Your task to perform on an android device: remove spam from my inbox in the gmail app Image 0: 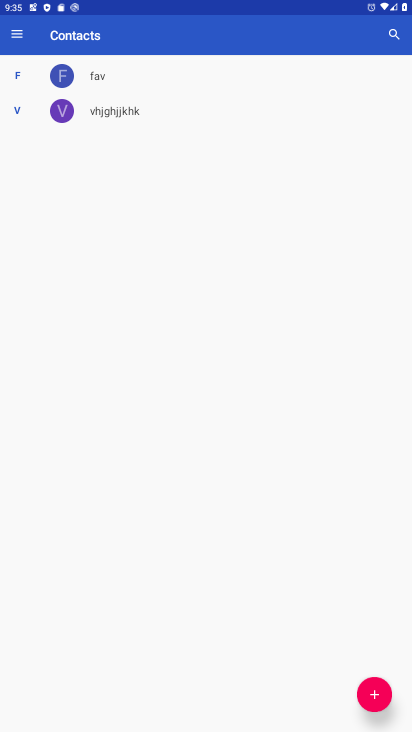
Step 0: press home button
Your task to perform on an android device: remove spam from my inbox in the gmail app Image 1: 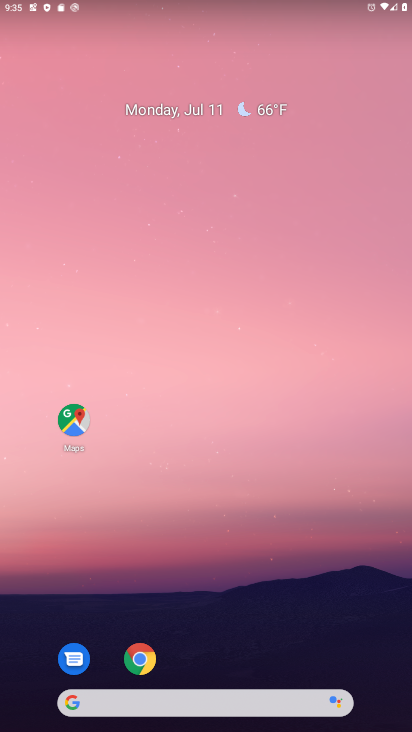
Step 1: drag from (368, 645) to (363, 195)
Your task to perform on an android device: remove spam from my inbox in the gmail app Image 2: 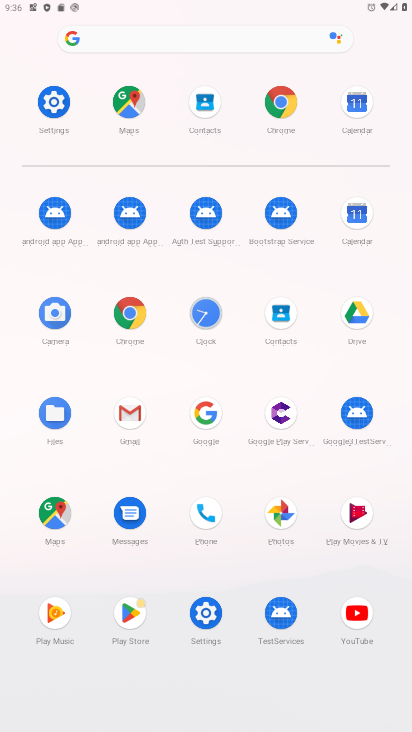
Step 2: click (129, 422)
Your task to perform on an android device: remove spam from my inbox in the gmail app Image 3: 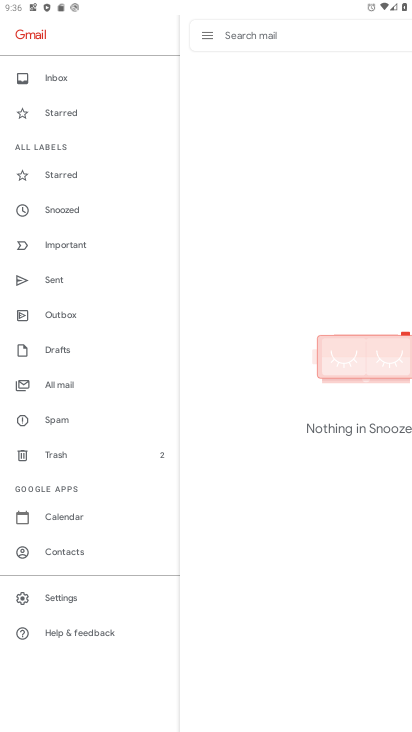
Step 3: click (75, 421)
Your task to perform on an android device: remove spam from my inbox in the gmail app Image 4: 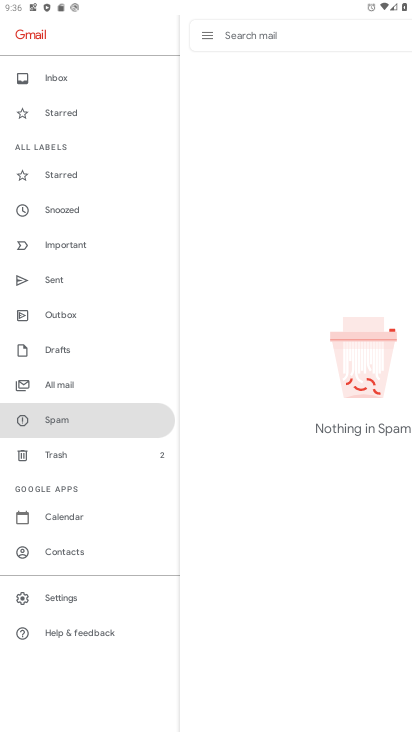
Step 4: task complete